Your task to perform on an android device: add a label to a message in the gmail app Image 0: 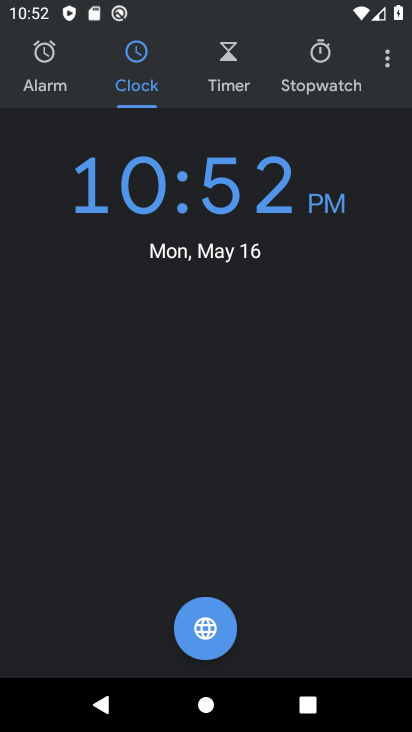
Step 0: press home button
Your task to perform on an android device: add a label to a message in the gmail app Image 1: 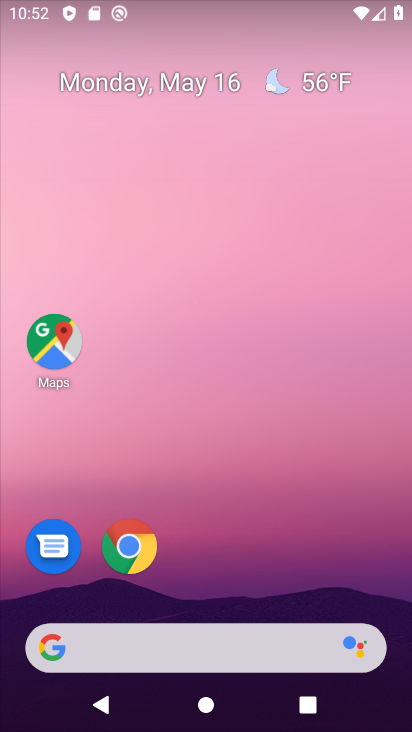
Step 1: drag from (327, 535) to (278, 88)
Your task to perform on an android device: add a label to a message in the gmail app Image 2: 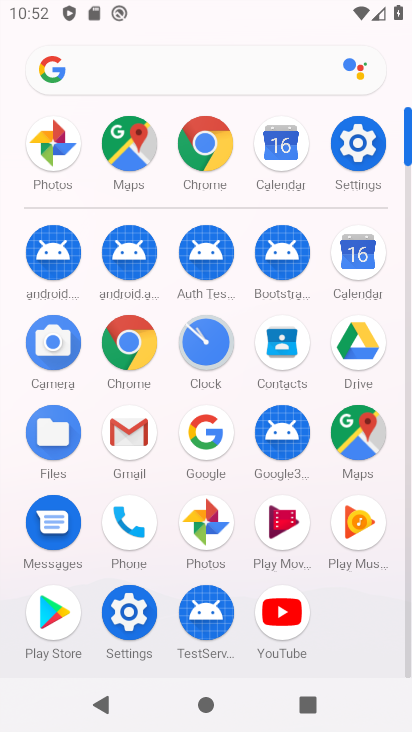
Step 2: click (143, 426)
Your task to perform on an android device: add a label to a message in the gmail app Image 3: 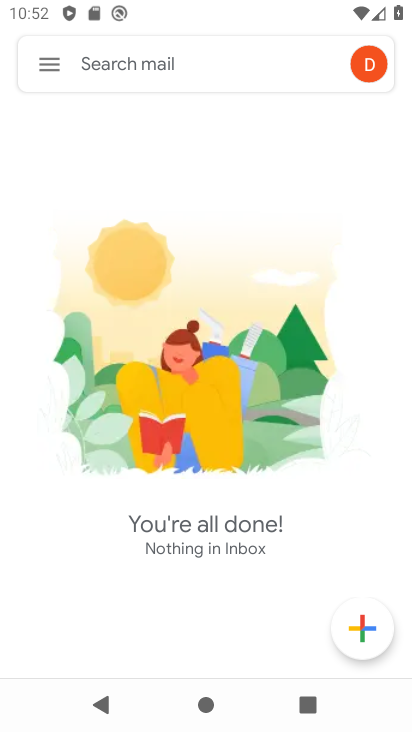
Step 3: task complete